Your task to perform on an android device: Open Youtube and go to "Your channel" Image 0: 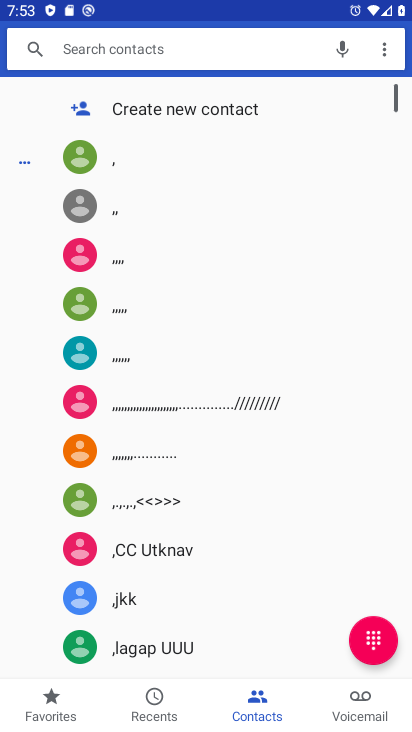
Step 0: press home button
Your task to perform on an android device: Open Youtube and go to "Your channel" Image 1: 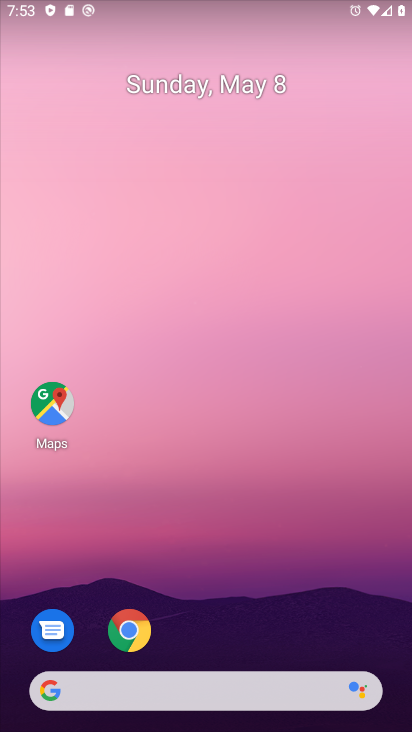
Step 1: drag from (199, 667) to (108, 39)
Your task to perform on an android device: Open Youtube and go to "Your channel" Image 2: 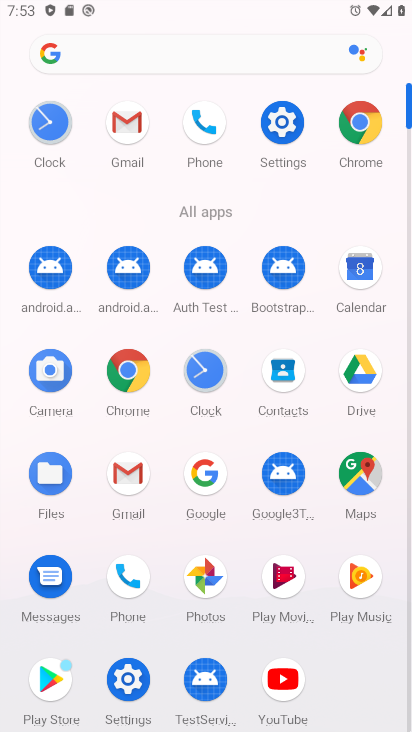
Step 2: click (289, 688)
Your task to perform on an android device: Open Youtube and go to "Your channel" Image 3: 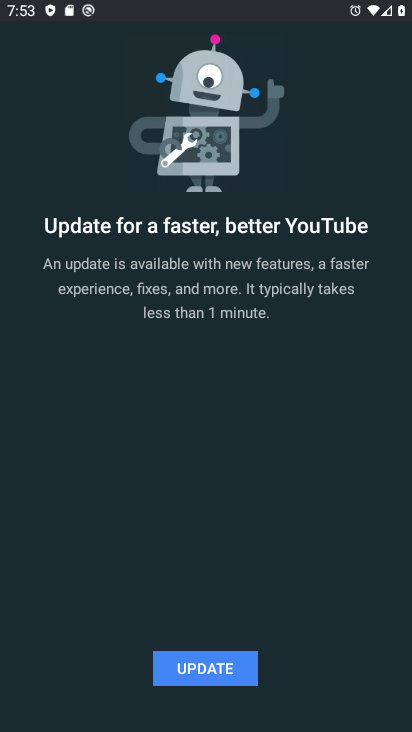
Step 3: drag from (185, 682) to (112, 662)
Your task to perform on an android device: Open Youtube and go to "Your channel" Image 4: 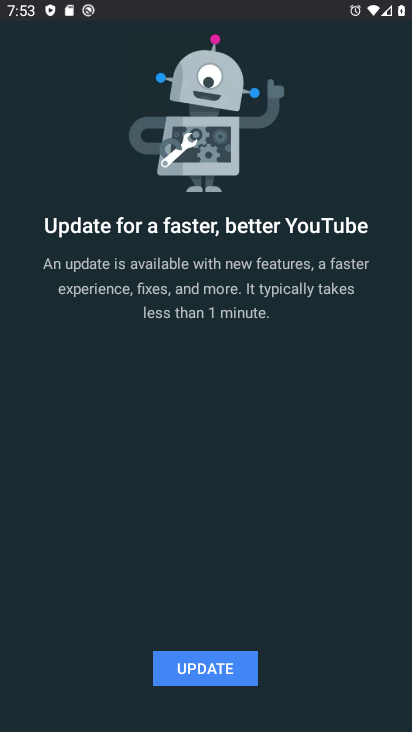
Step 4: click (180, 683)
Your task to perform on an android device: Open Youtube and go to "Your channel" Image 5: 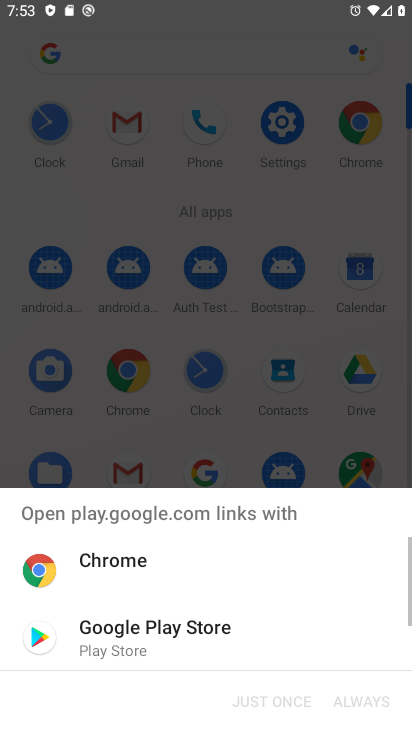
Step 5: click (109, 640)
Your task to perform on an android device: Open Youtube and go to "Your channel" Image 6: 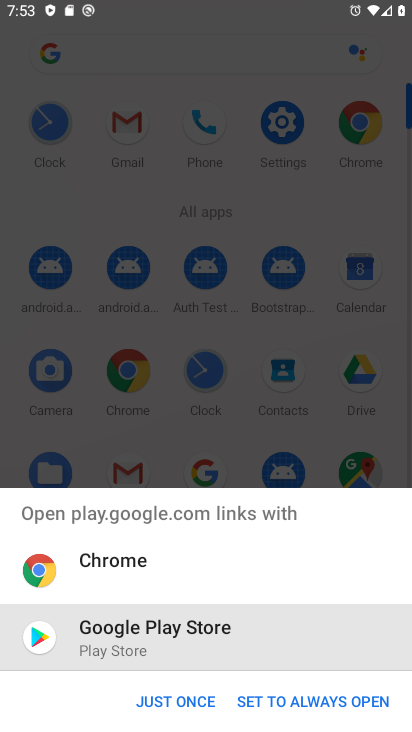
Step 6: click (167, 705)
Your task to perform on an android device: Open Youtube and go to "Your channel" Image 7: 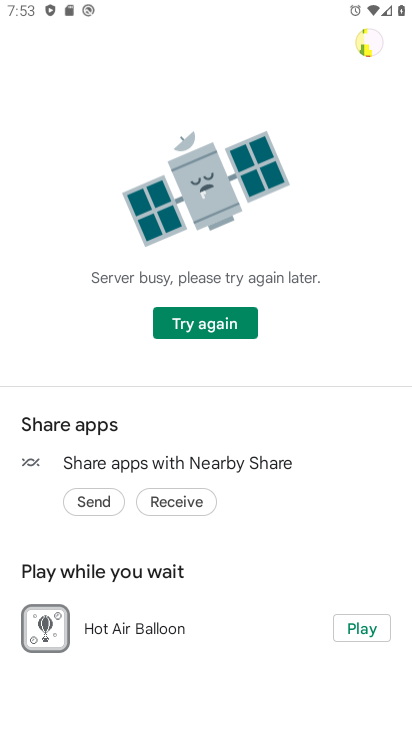
Step 7: click (209, 324)
Your task to perform on an android device: Open Youtube and go to "Your channel" Image 8: 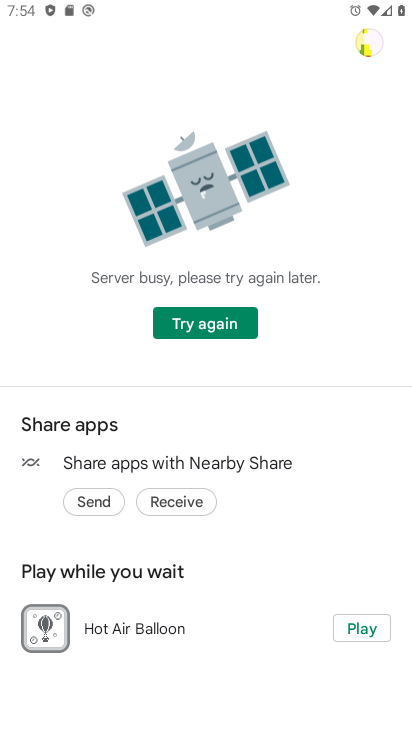
Step 8: task complete